Your task to perform on an android device: Open settings Image 0: 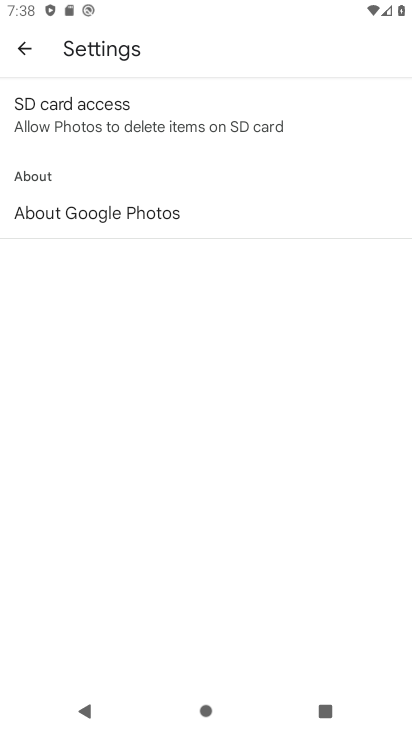
Step 0: press home button
Your task to perform on an android device: Open settings Image 1: 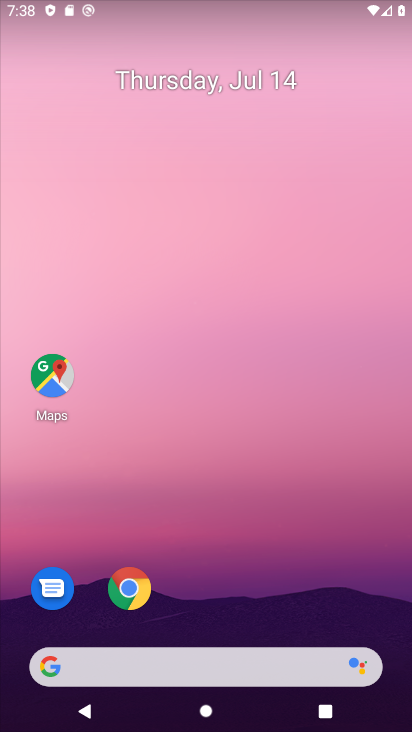
Step 1: drag from (206, 597) to (256, 81)
Your task to perform on an android device: Open settings Image 2: 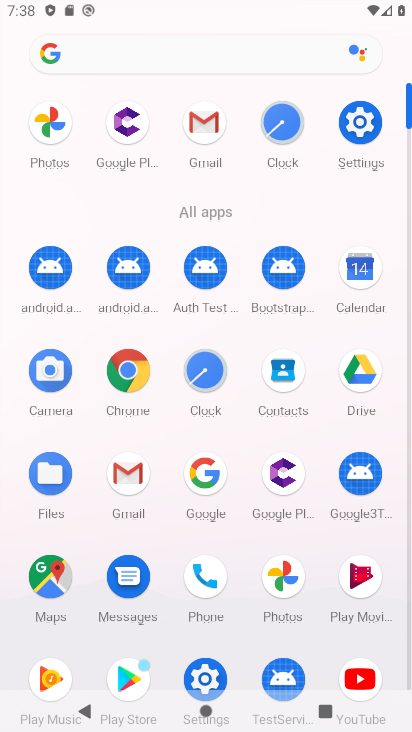
Step 2: click (362, 119)
Your task to perform on an android device: Open settings Image 3: 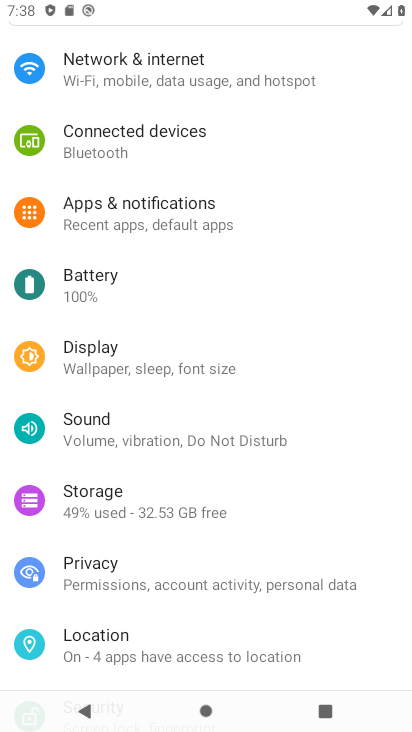
Step 3: task complete